Your task to perform on an android device: Open Google Image 0: 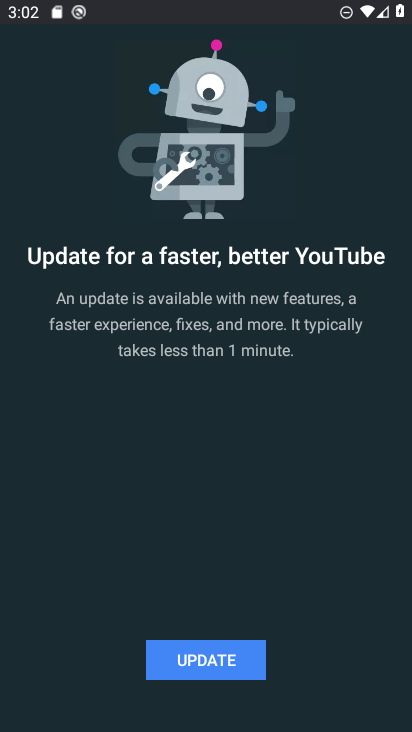
Step 0: press home button
Your task to perform on an android device: Open Google Image 1: 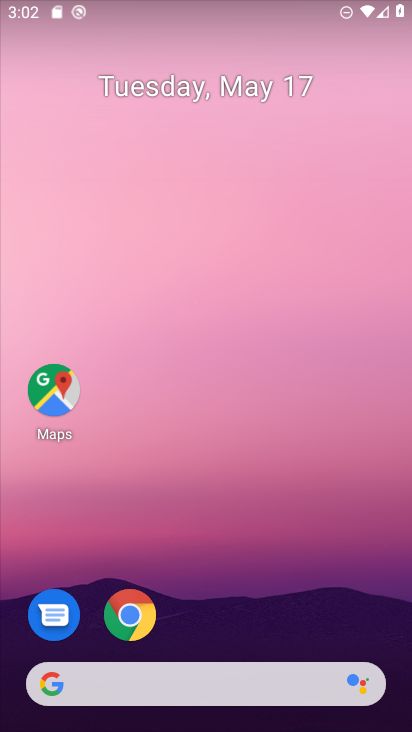
Step 1: drag from (213, 712) to (238, 209)
Your task to perform on an android device: Open Google Image 2: 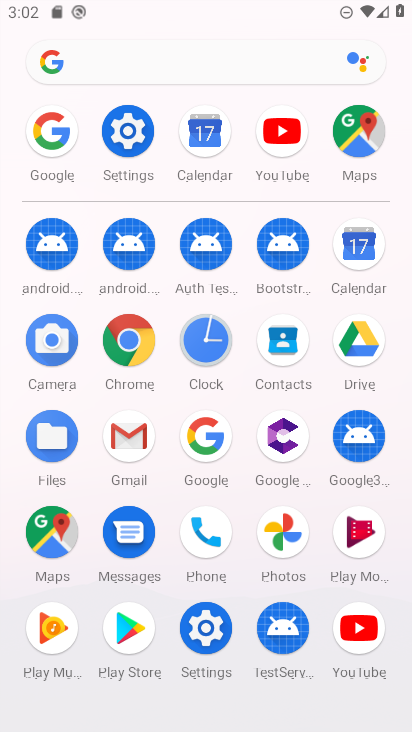
Step 2: click (209, 432)
Your task to perform on an android device: Open Google Image 3: 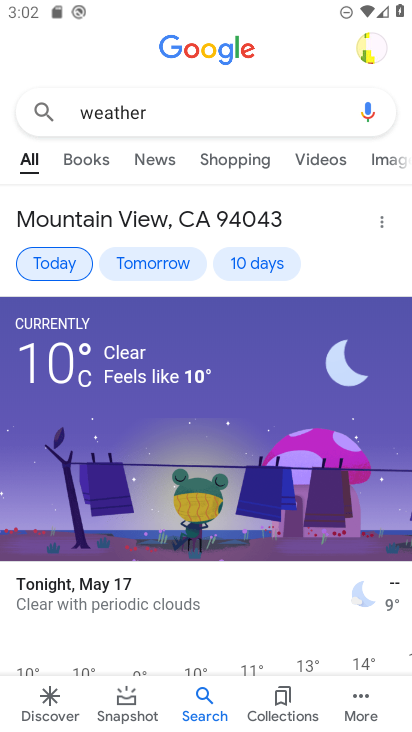
Step 3: task complete